Your task to perform on an android device: check data usage Image 0: 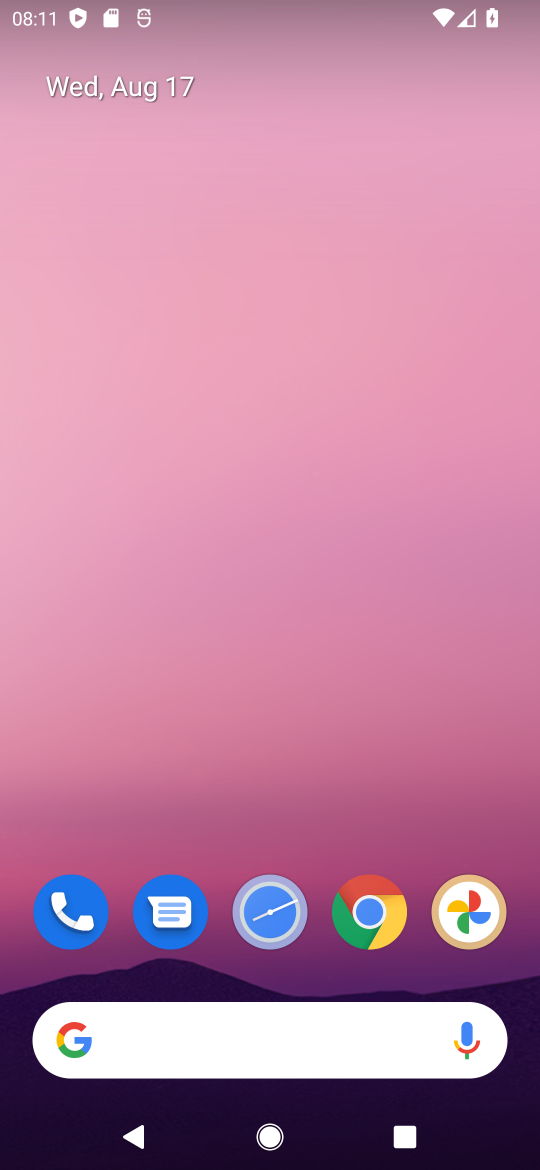
Step 0: drag from (256, 1022) to (258, 178)
Your task to perform on an android device: check data usage Image 1: 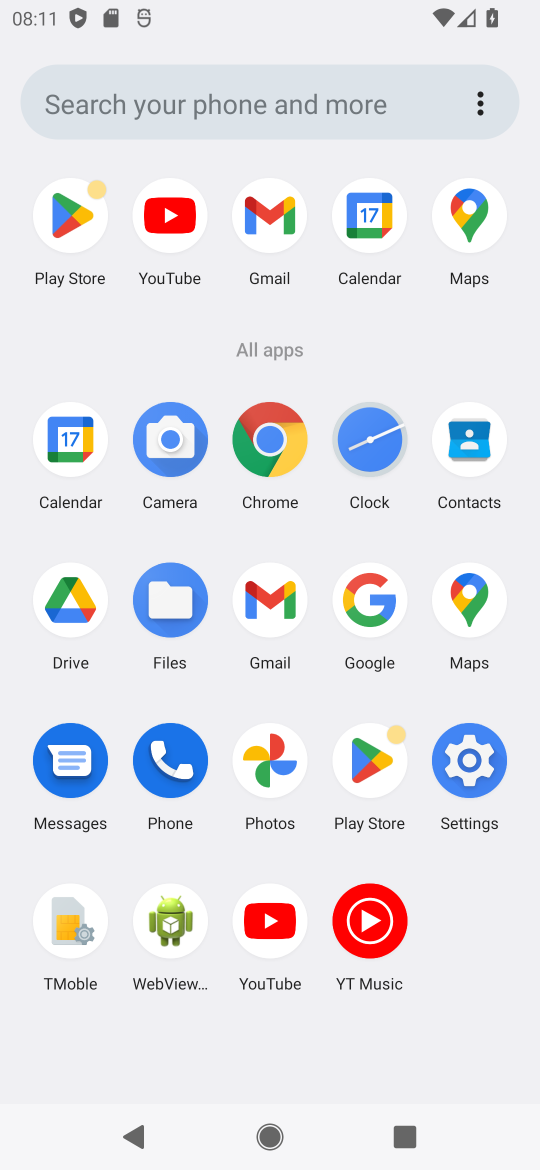
Step 1: click (484, 758)
Your task to perform on an android device: check data usage Image 2: 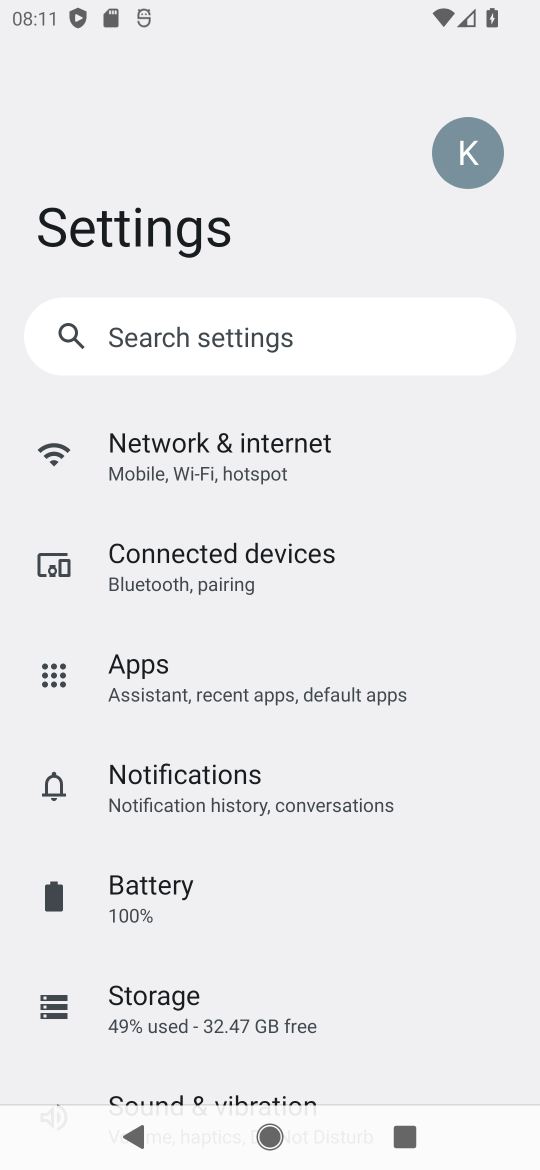
Step 2: click (228, 472)
Your task to perform on an android device: check data usage Image 3: 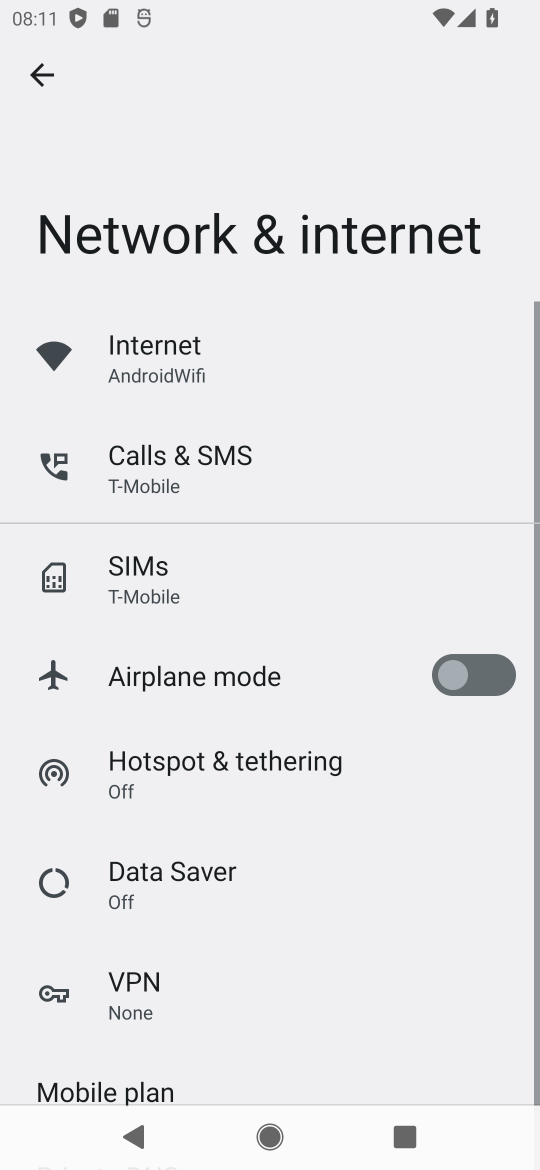
Step 3: drag from (170, 1070) to (256, 344)
Your task to perform on an android device: check data usage Image 4: 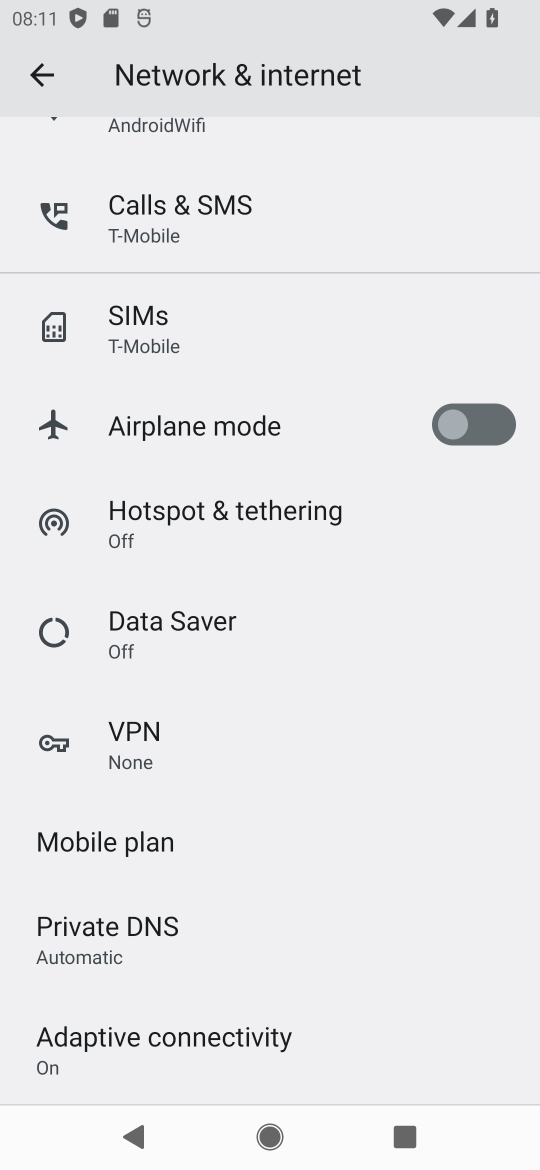
Step 4: drag from (180, 165) to (137, 766)
Your task to perform on an android device: check data usage Image 5: 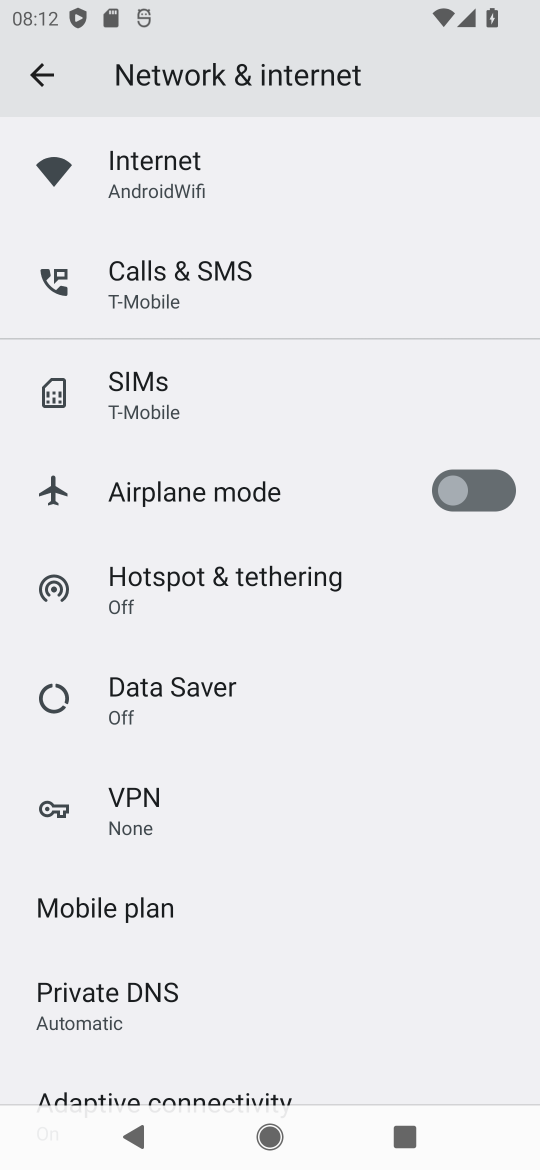
Step 5: click (165, 174)
Your task to perform on an android device: check data usage Image 6: 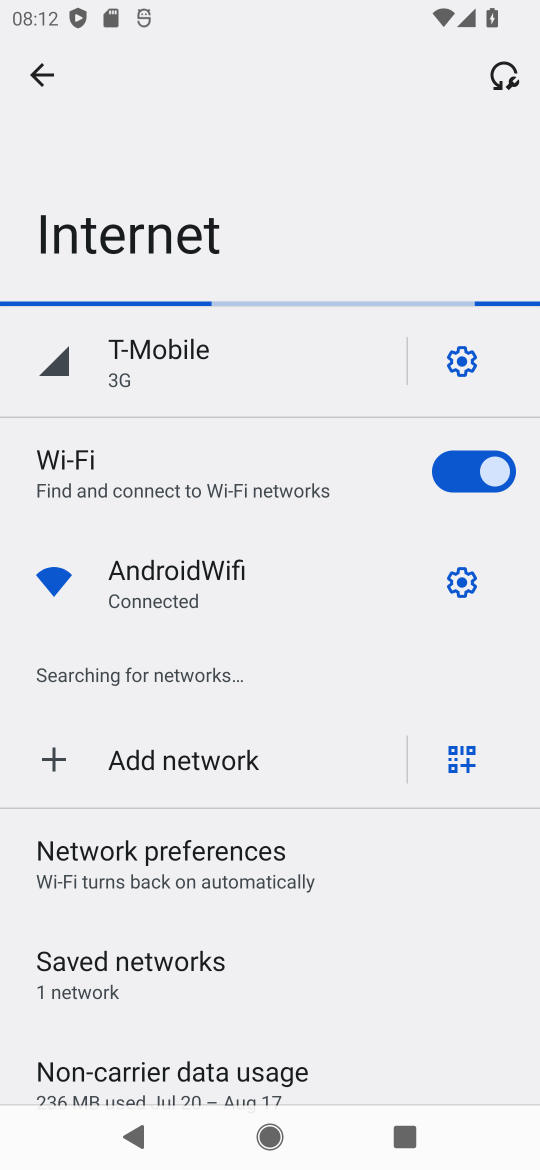
Step 6: click (151, 366)
Your task to perform on an android device: check data usage Image 7: 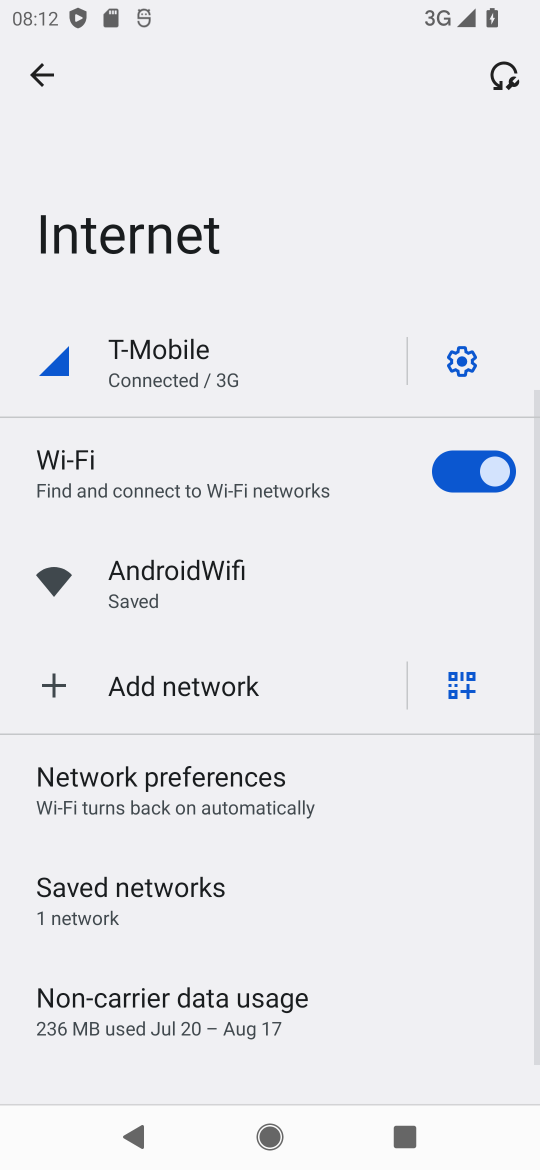
Step 7: click (73, 1036)
Your task to perform on an android device: check data usage Image 8: 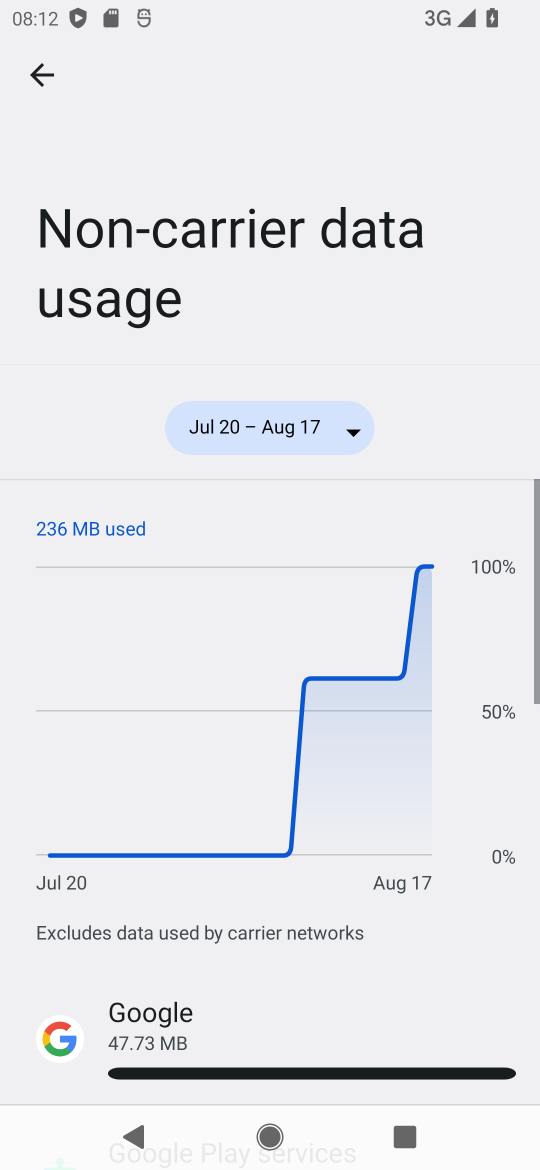
Step 8: task complete